Your task to perform on an android device: see tabs open on other devices in the chrome app Image 0: 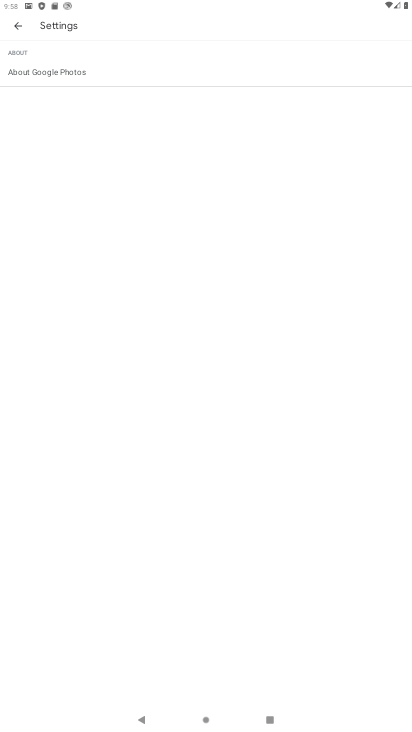
Step 0: press home button
Your task to perform on an android device: see tabs open on other devices in the chrome app Image 1: 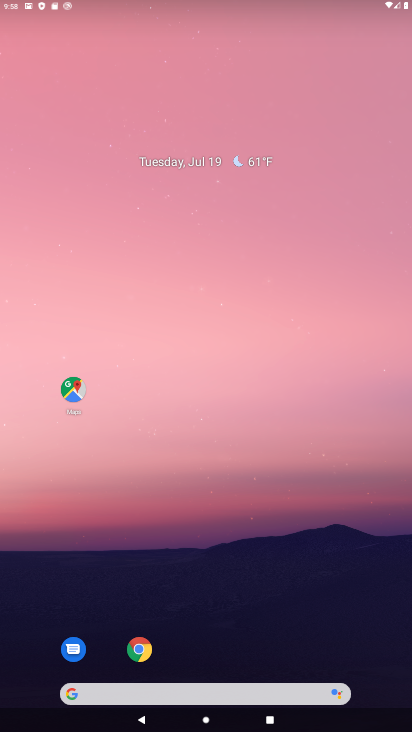
Step 1: drag from (366, 661) to (145, 92)
Your task to perform on an android device: see tabs open on other devices in the chrome app Image 2: 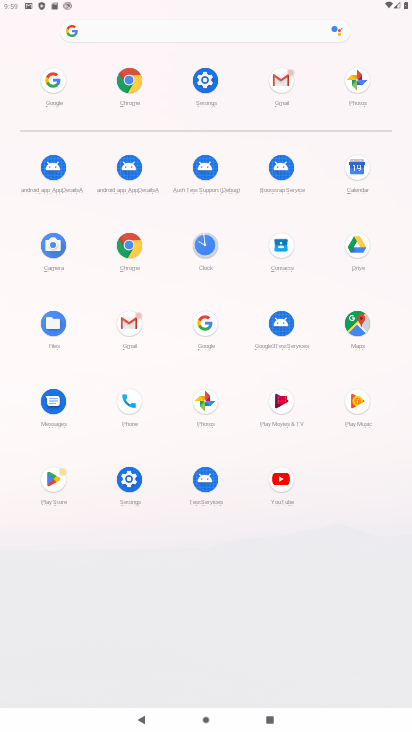
Step 2: click (122, 241)
Your task to perform on an android device: see tabs open on other devices in the chrome app Image 3: 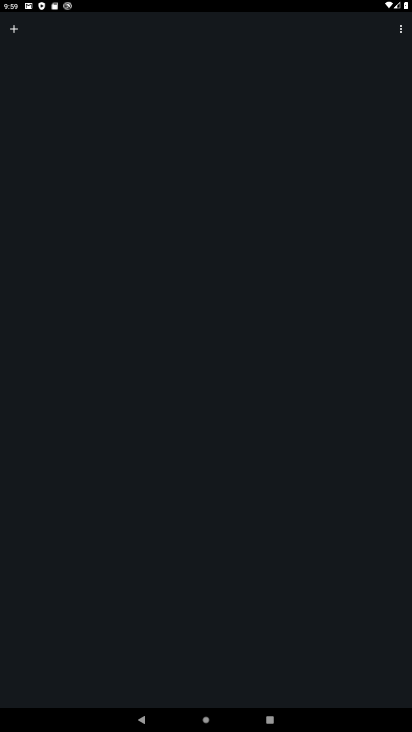
Step 3: task complete